Your task to perform on an android device: What is the recent news? Image 0: 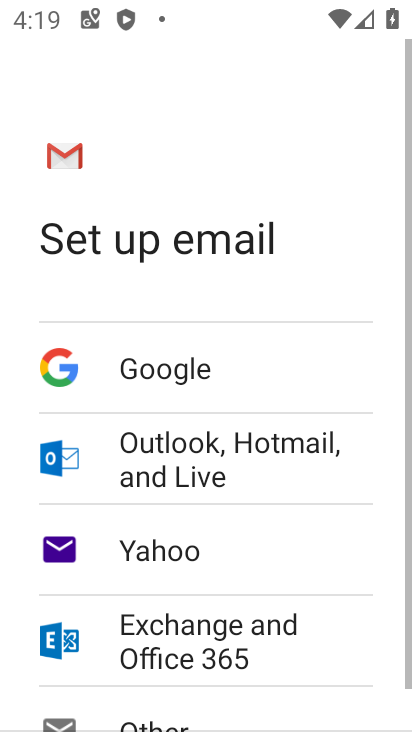
Step 0: press home button
Your task to perform on an android device: What is the recent news? Image 1: 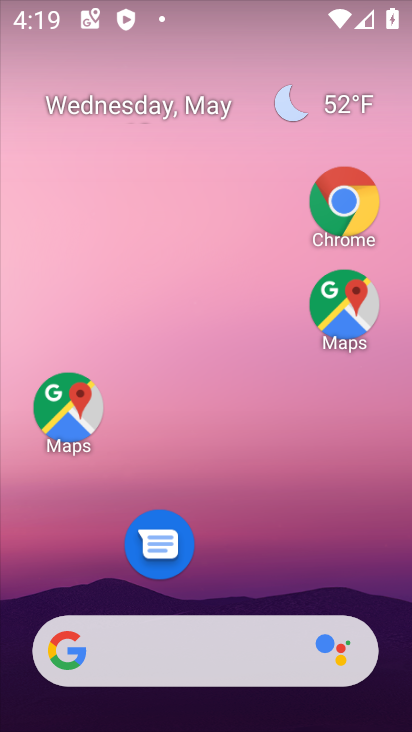
Step 1: click (180, 640)
Your task to perform on an android device: What is the recent news? Image 2: 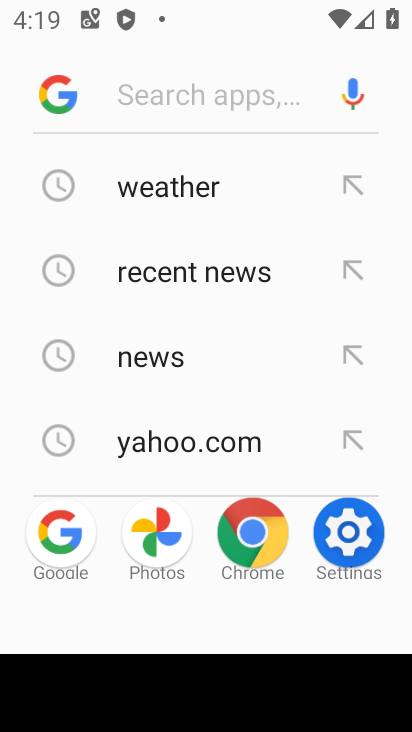
Step 2: click (156, 296)
Your task to perform on an android device: What is the recent news? Image 3: 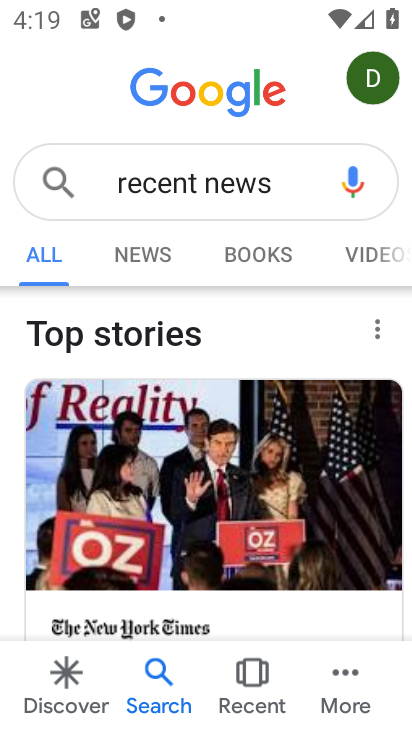
Step 3: task complete